Your task to perform on an android device: toggle translation in the chrome app Image 0: 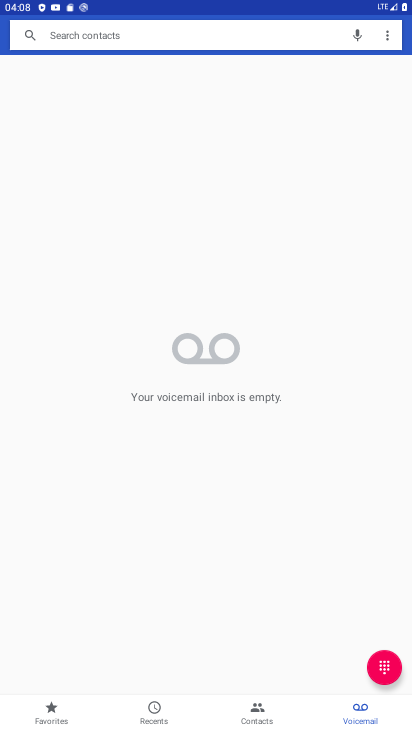
Step 0: press home button
Your task to perform on an android device: toggle translation in the chrome app Image 1: 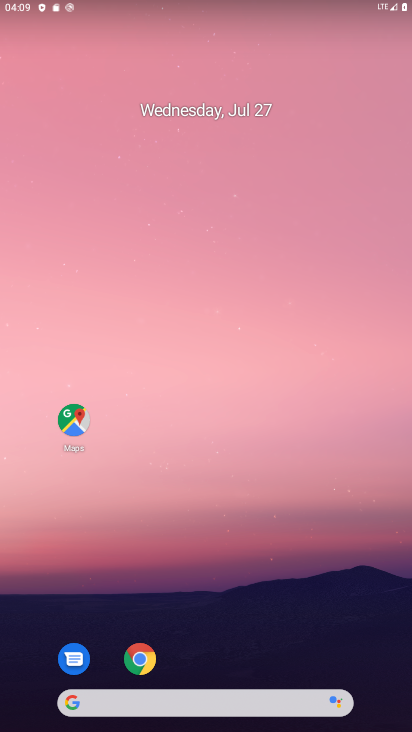
Step 1: click (139, 666)
Your task to perform on an android device: toggle translation in the chrome app Image 2: 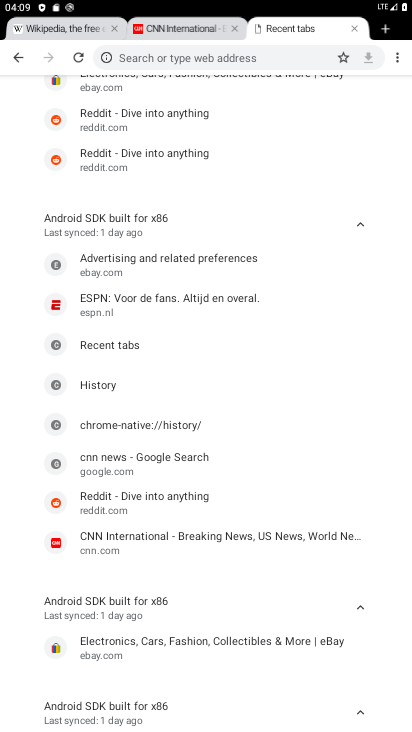
Step 2: click (398, 61)
Your task to perform on an android device: toggle translation in the chrome app Image 3: 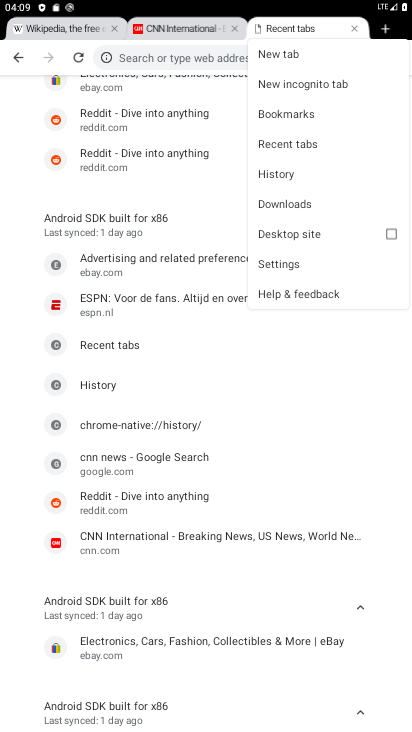
Step 3: click (284, 262)
Your task to perform on an android device: toggle translation in the chrome app Image 4: 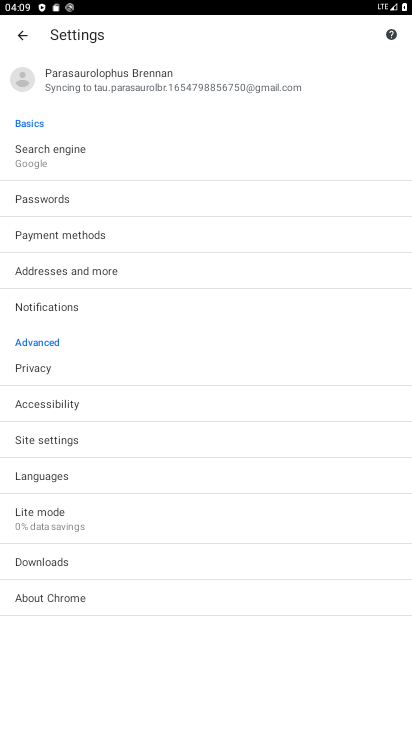
Step 4: click (53, 481)
Your task to perform on an android device: toggle translation in the chrome app Image 5: 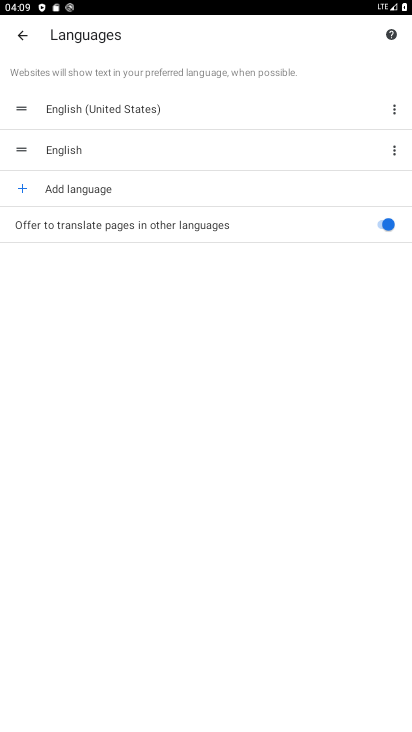
Step 5: click (387, 233)
Your task to perform on an android device: toggle translation in the chrome app Image 6: 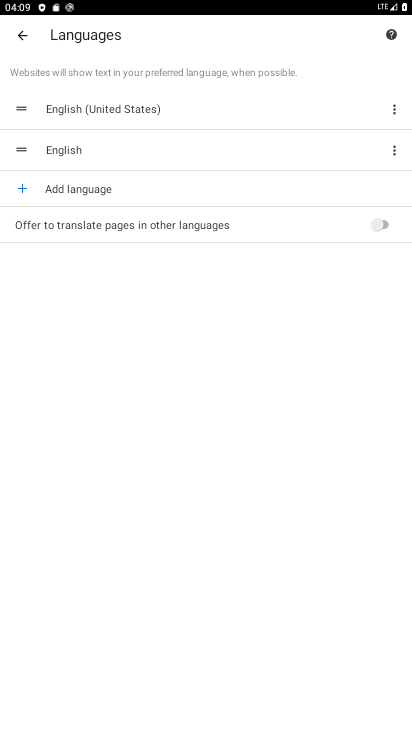
Step 6: task complete